Your task to perform on an android device: Go to battery settings Image 0: 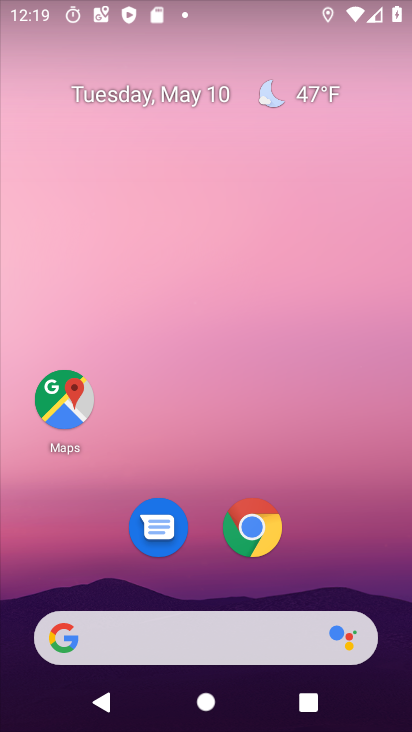
Step 0: click (333, 548)
Your task to perform on an android device: Go to battery settings Image 1: 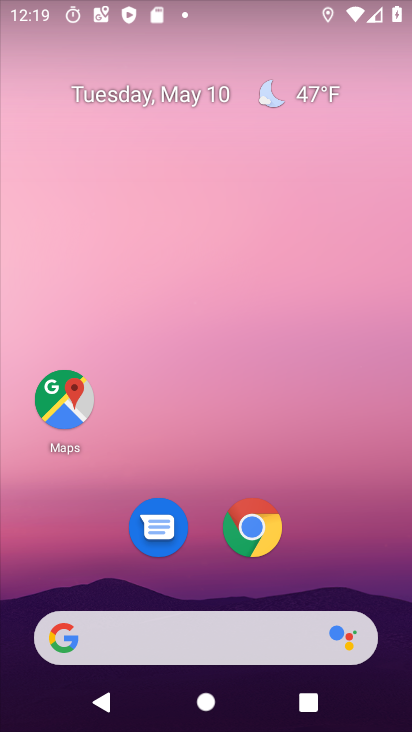
Step 1: press home button
Your task to perform on an android device: Go to battery settings Image 2: 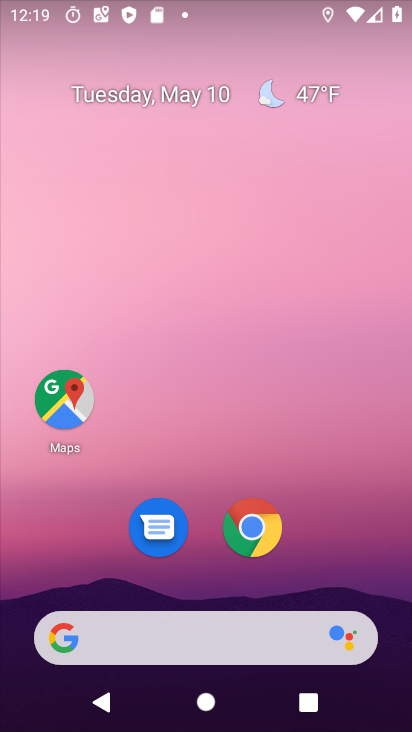
Step 2: drag from (344, 553) to (329, 185)
Your task to perform on an android device: Go to battery settings Image 3: 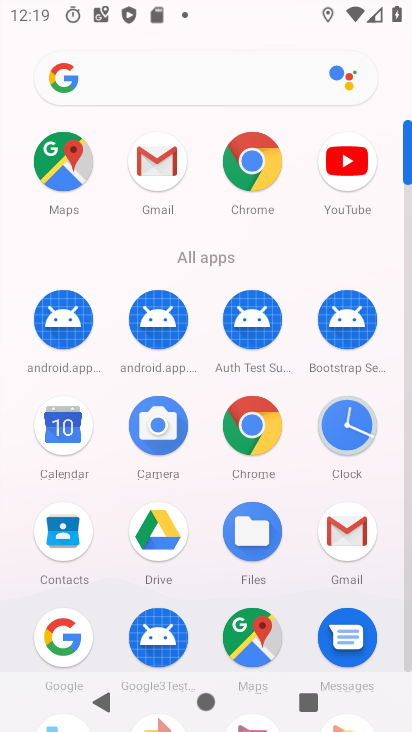
Step 3: drag from (246, 624) to (262, 303)
Your task to perform on an android device: Go to battery settings Image 4: 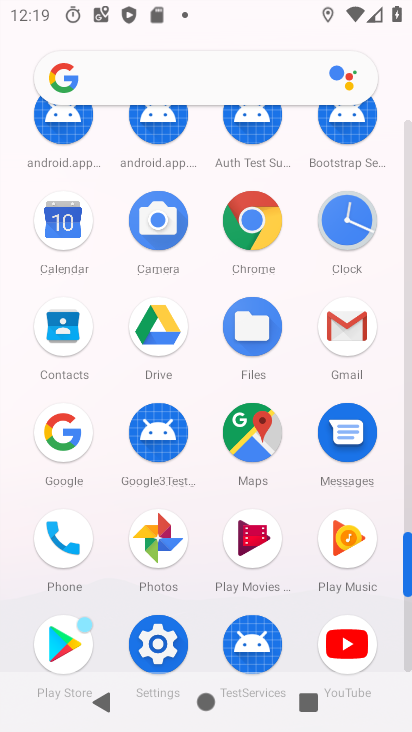
Step 4: click (139, 651)
Your task to perform on an android device: Go to battery settings Image 5: 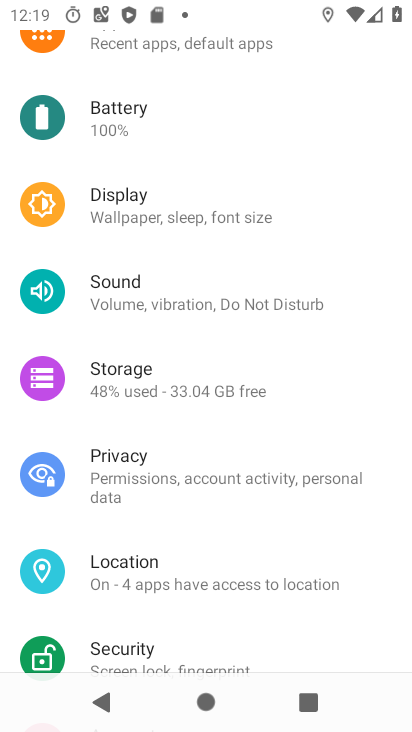
Step 5: click (126, 135)
Your task to perform on an android device: Go to battery settings Image 6: 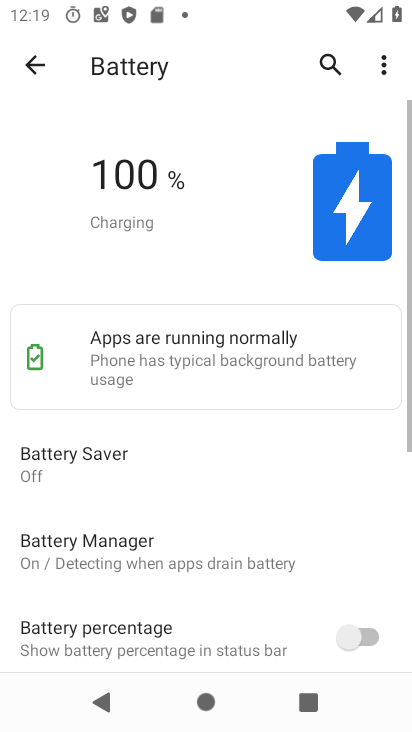
Step 6: click (382, 78)
Your task to perform on an android device: Go to battery settings Image 7: 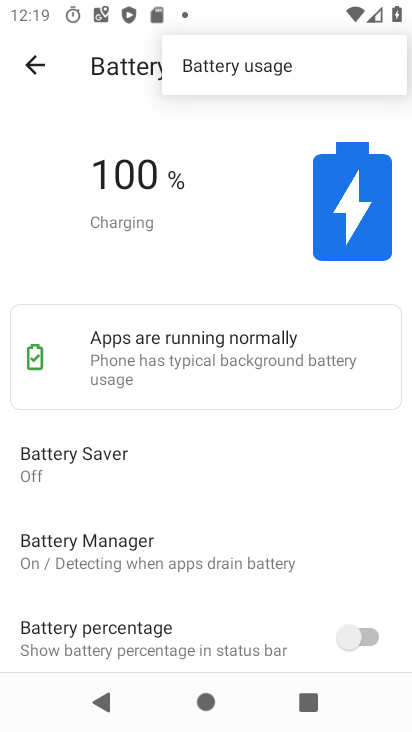
Step 7: task complete